Your task to perform on an android device: change keyboard looks Image 0: 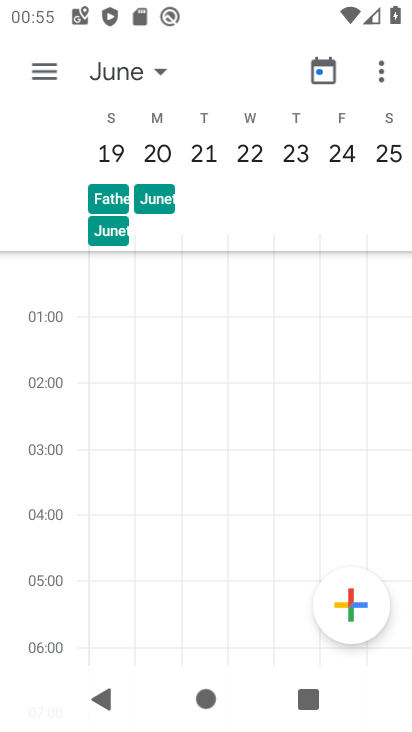
Step 0: press home button
Your task to perform on an android device: change keyboard looks Image 1: 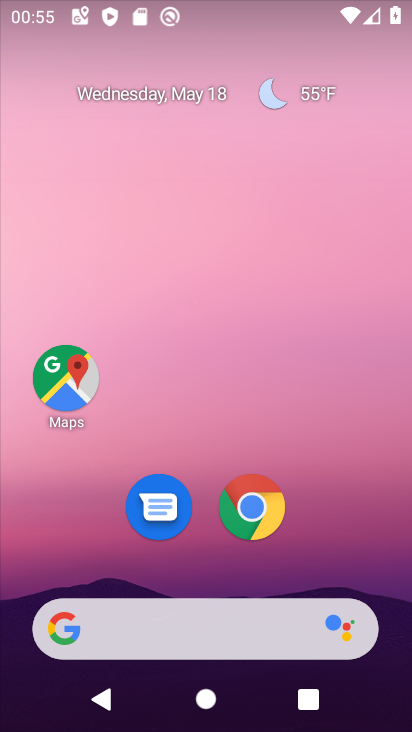
Step 1: drag from (387, 612) to (310, 182)
Your task to perform on an android device: change keyboard looks Image 2: 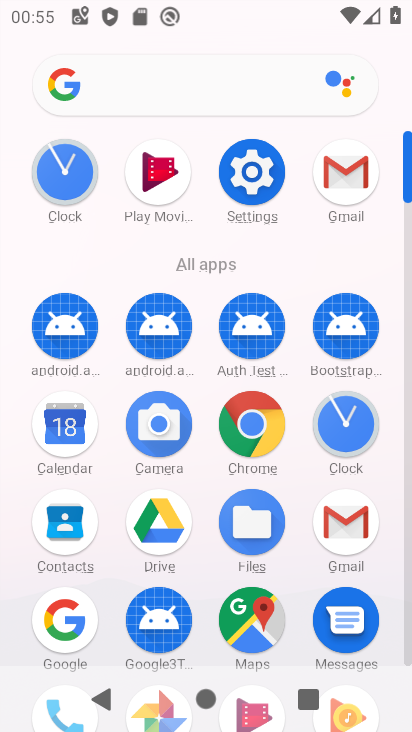
Step 2: click (408, 648)
Your task to perform on an android device: change keyboard looks Image 3: 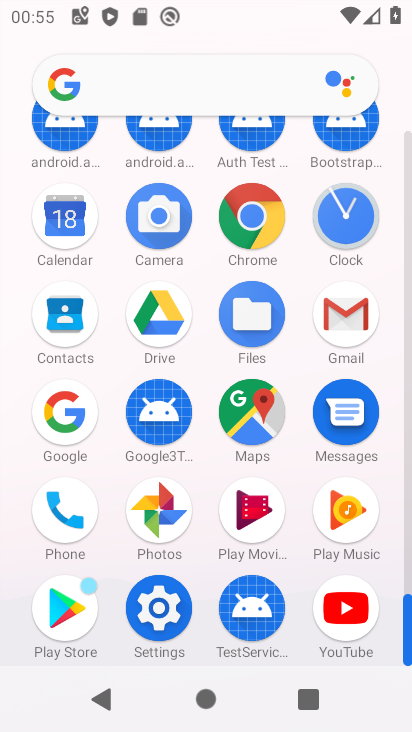
Step 3: click (155, 604)
Your task to perform on an android device: change keyboard looks Image 4: 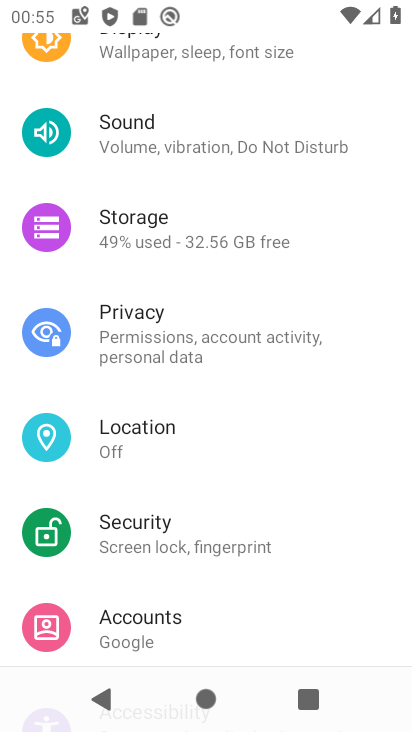
Step 4: drag from (248, 621) to (247, 238)
Your task to perform on an android device: change keyboard looks Image 5: 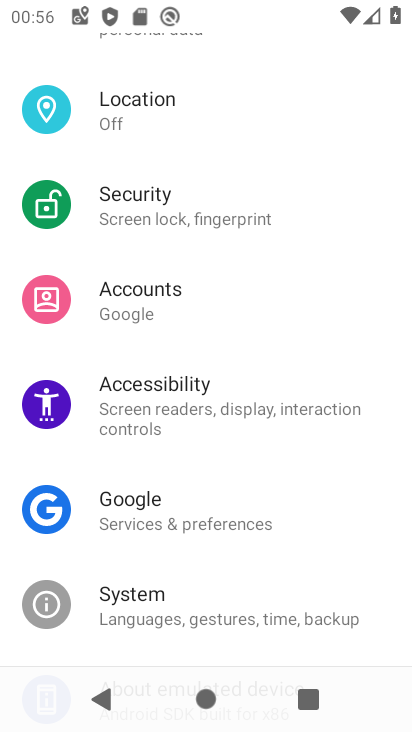
Step 5: drag from (254, 612) to (226, 217)
Your task to perform on an android device: change keyboard looks Image 6: 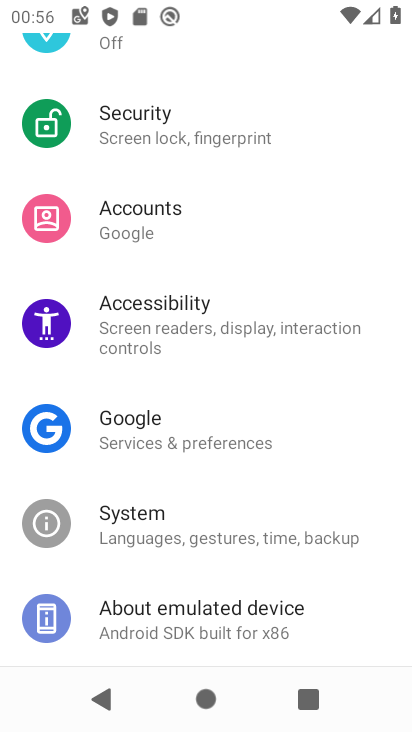
Step 6: drag from (172, 629) to (186, 356)
Your task to perform on an android device: change keyboard looks Image 7: 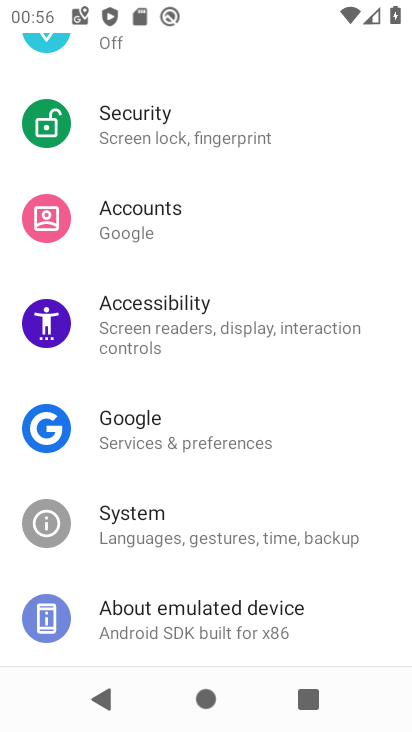
Step 7: click (182, 624)
Your task to perform on an android device: change keyboard looks Image 8: 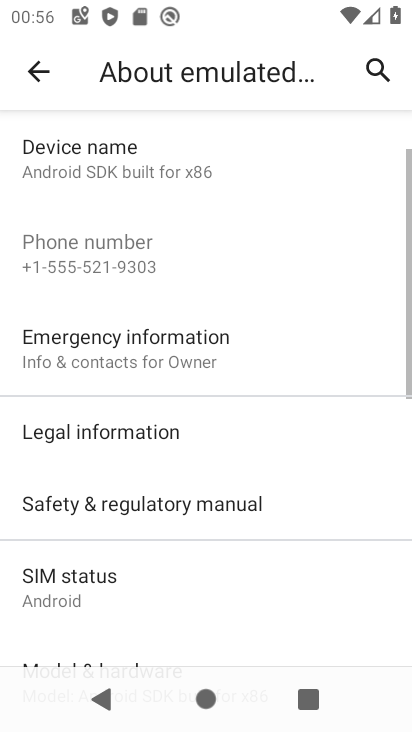
Step 8: drag from (204, 598) to (257, 241)
Your task to perform on an android device: change keyboard looks Image 9: 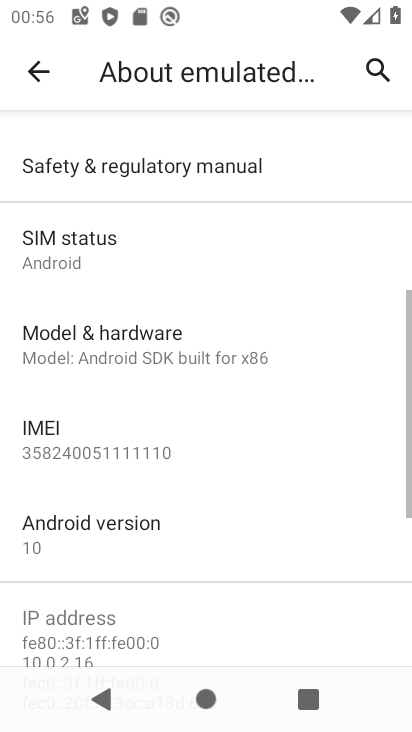
Step 9: press back button
Your task to perform on an android device: change keyboard looks Image 10: 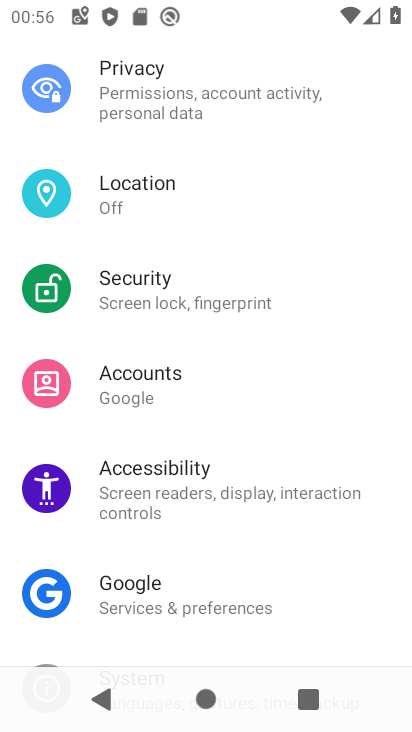
Step 10: drag from (220, 632) to (192, 214)
Your task to perform on an android device: change keyboard looks Image 11: 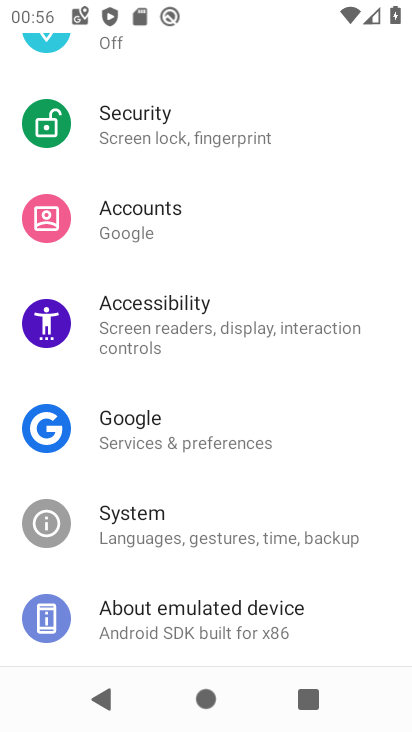
Step 11: click (159, 511)
Your task to perform on an android device: change keyboard looks Image 12: 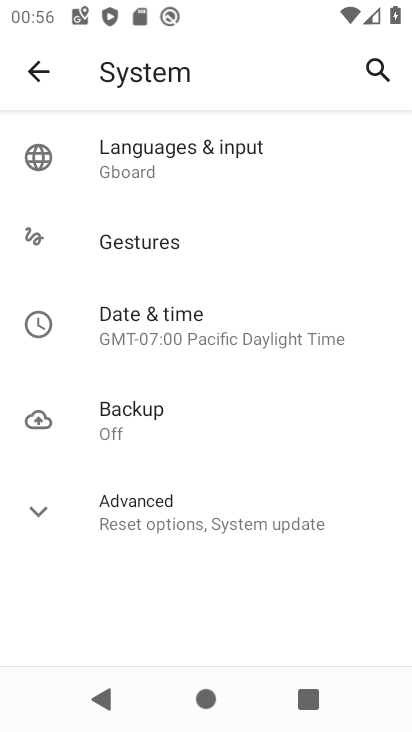
Step 12: click (134, 156)
Your task to perform on an android device: change keyboard looks Image 13: 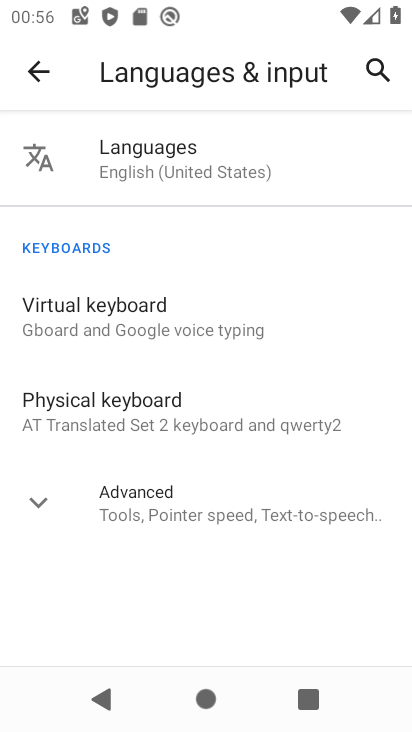
Step 13: click (103, 404)
Your task to perform on an android device: change keyboard looks Image 14: 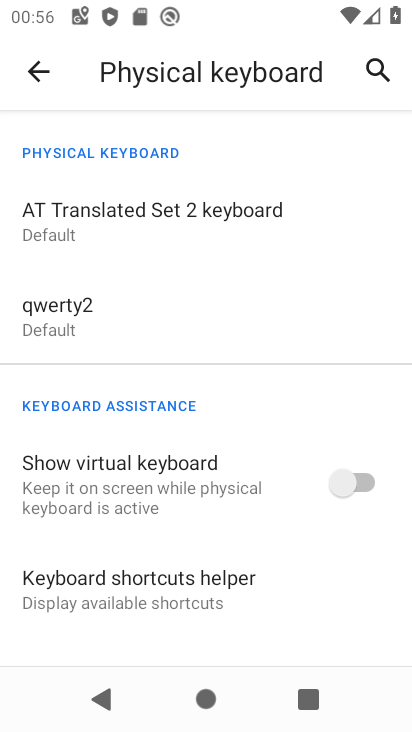
Step 14: click (63, 324)
Your task to perform on an android device: change keyboard looks Image 15: 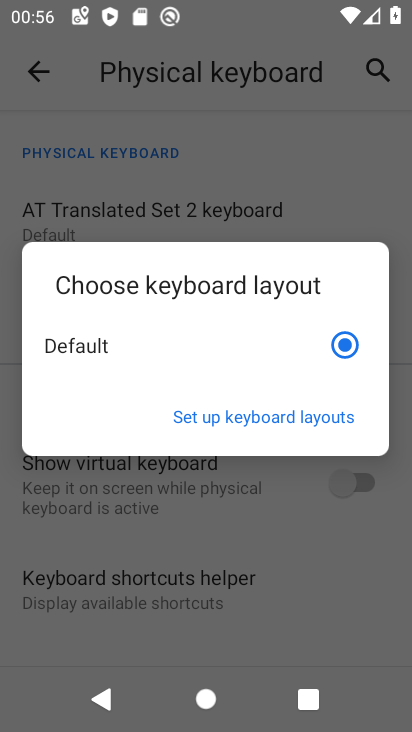
Step 15: click (247, 421)
Your task to perform on an android device: change keyboard looks Image 16: 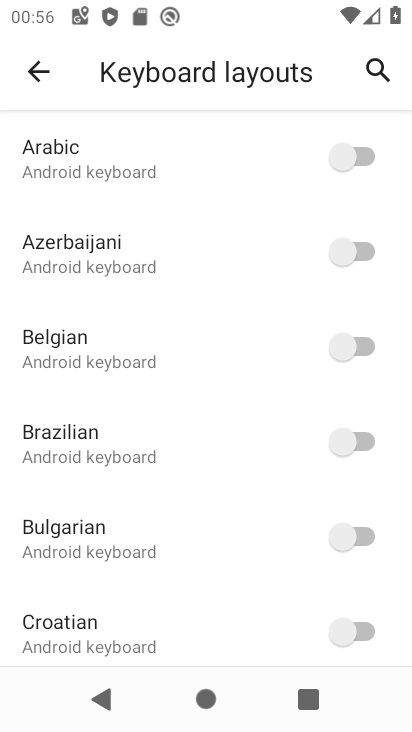
Step 16: drag from (260, 572) to (231, 164)
Your task to perform on an android device: change keyboard looks Image 17: 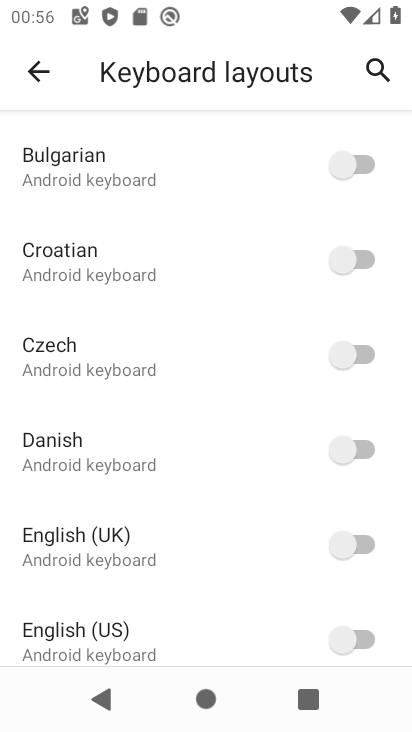
Step 17: click (363, 540)
Your task to perform on an android device: change keyboard looks Image 18: 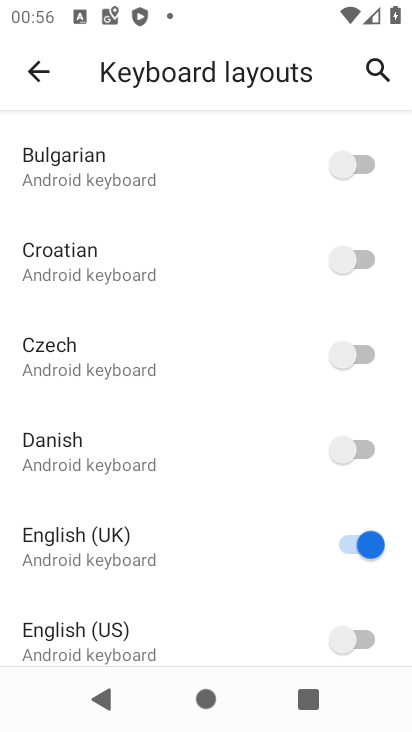
Step 18: task complete